Your task to perform on an android device: Open Reddit.com Image 0: 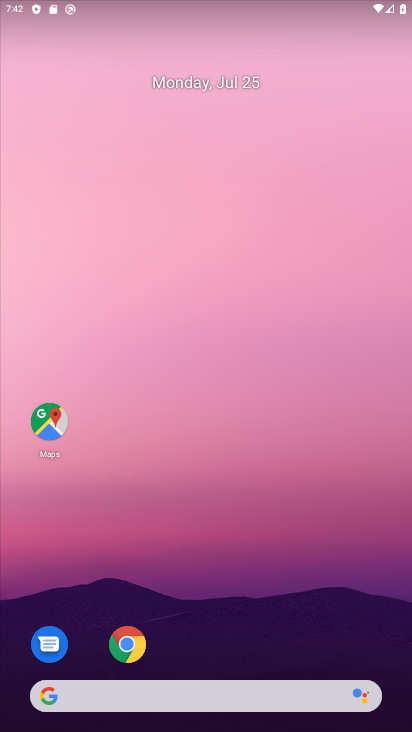
Step 0: click (134, 651)
Your task to perform on an android device: Open Reddit.com Image 1: 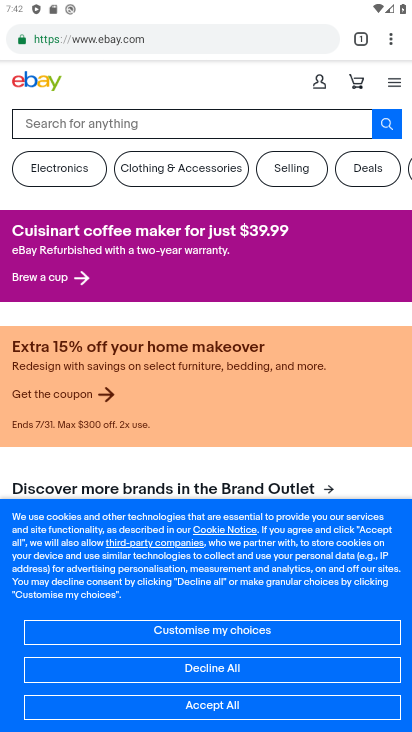
Step 1: click (153, 32)
Your task to perform on an android device: Open Reddit.com Image 2: 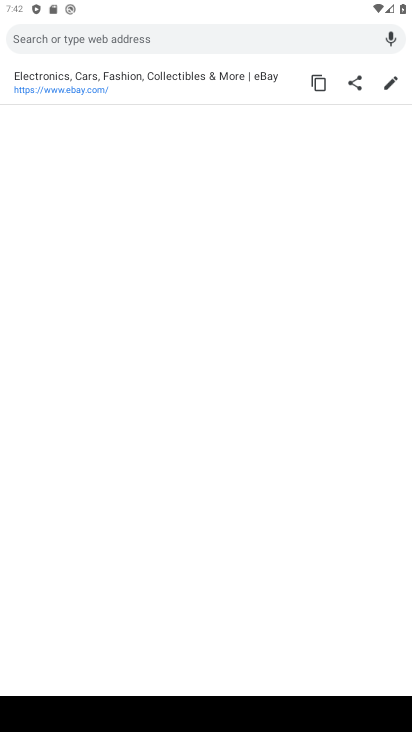
Step 2: type "www.reddit.com"
Your task to perform on an android device: Open Reddit.com Image 3: 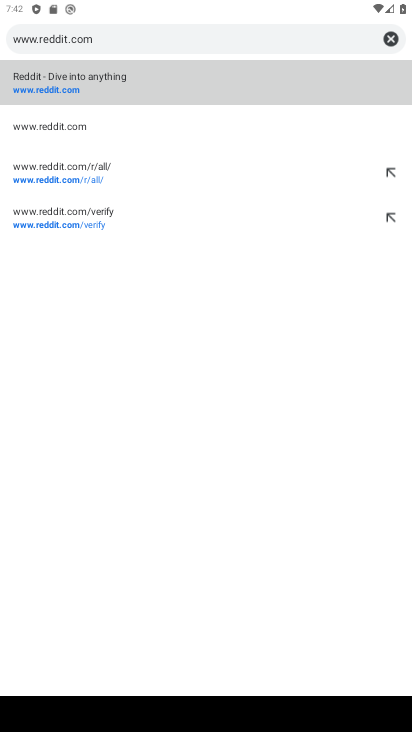
Step 3: click (28, 85)
Your task to perform on an android device: Open Reddit.com Image 4: 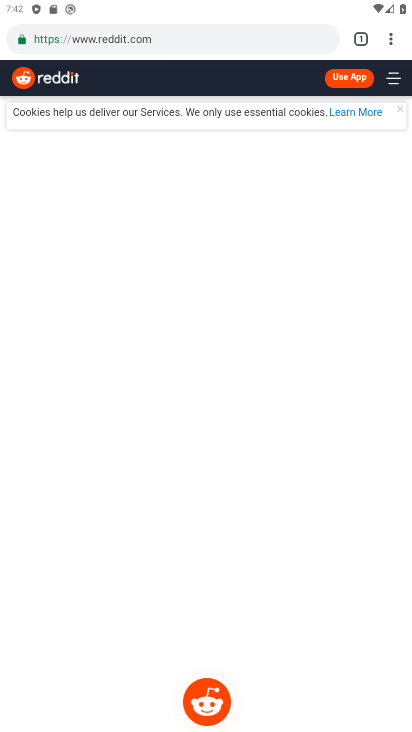
Step 4: task complete